Your task to perform on an android device: toggle translation in the chrome app Image 0: 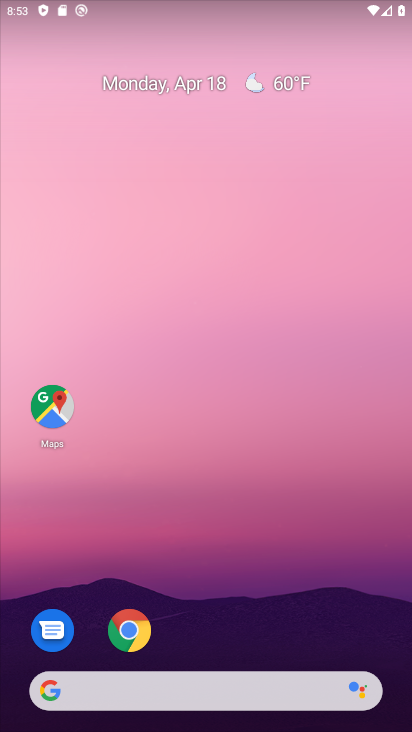
Step 0: click (134, 628)
Your task to perform on an android device: toggle translation in the chrome app Image 1: 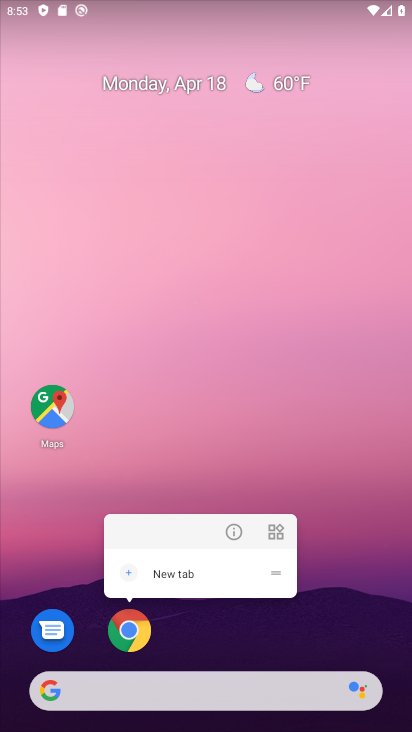
Step 1: drag from (363, 547) to (299, 106)
Your task to perform on an android device: toggle translation in the chrome app Image 2: 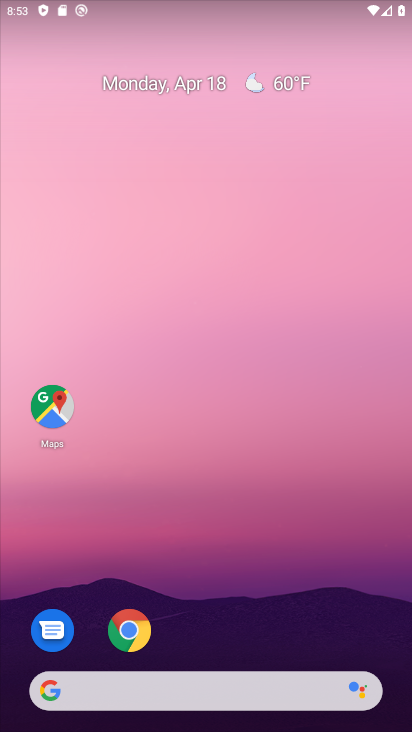
Step 2: drag from (238, 619) to (302, 161)
Your task to perform on an android device: toggle translation in the chrome app Image 3: 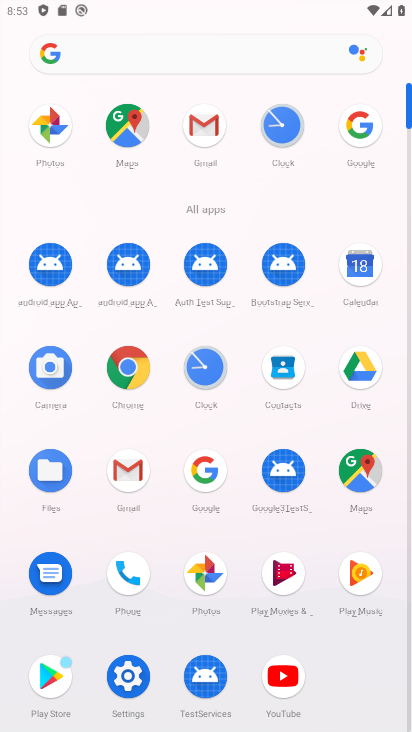
Step 3: click (127, 370)
Your task to perform on an android device: toggle translation in the chrome app Image 4: 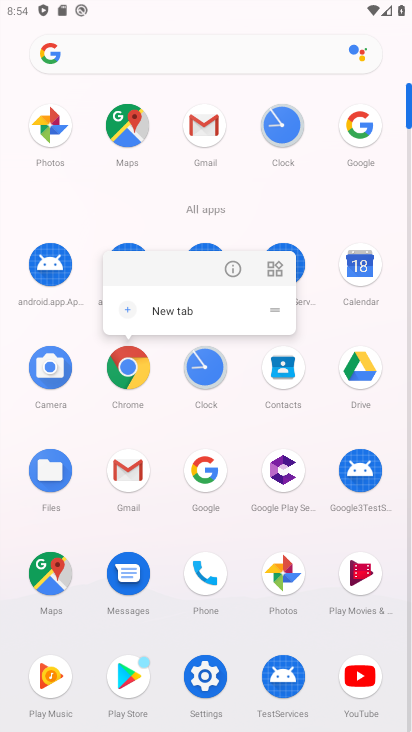
Step 4: click (127, 374)
Your task to perform on an android device: toggle translation in the chrome app Image 5: 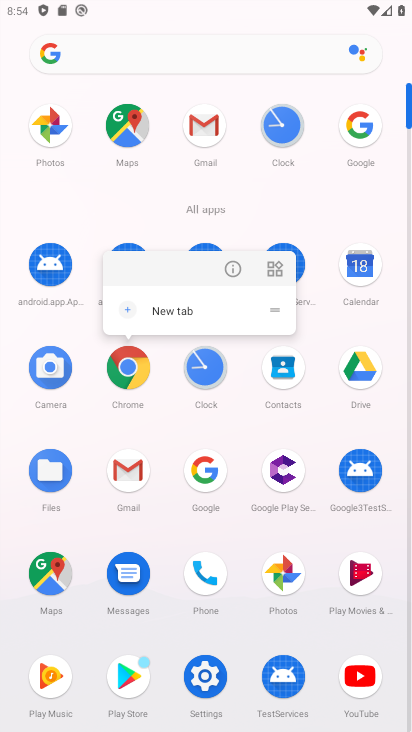
Step 5: click (132, 381)
Your task to perform on an android device: toggle translation in the chrome app Image 6: 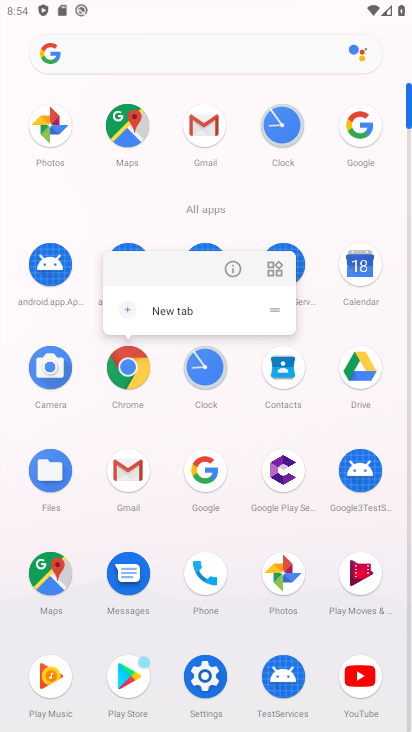
Step 6: click (244, 416)
Your task to perform on an android device: toggle translation in the chrome app Image 7: 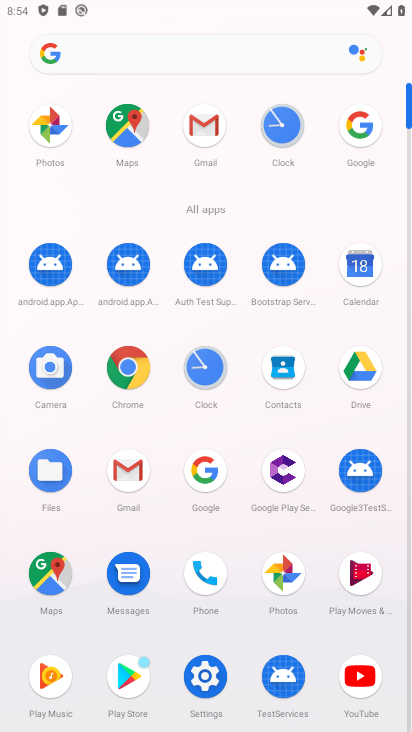
Step 7: click (136, 359)
Your task to perform on an android device: toggle translation in the chrome app Image 8: 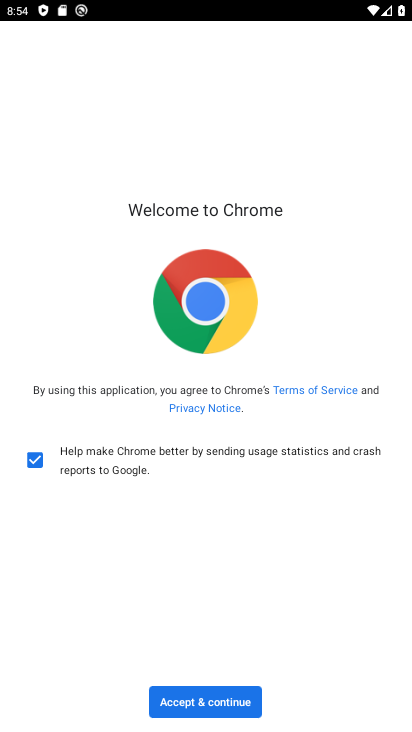
Step 8: click (238, 697)
Your task to perform on an android device: toggle translation in the chrome app Image 9: 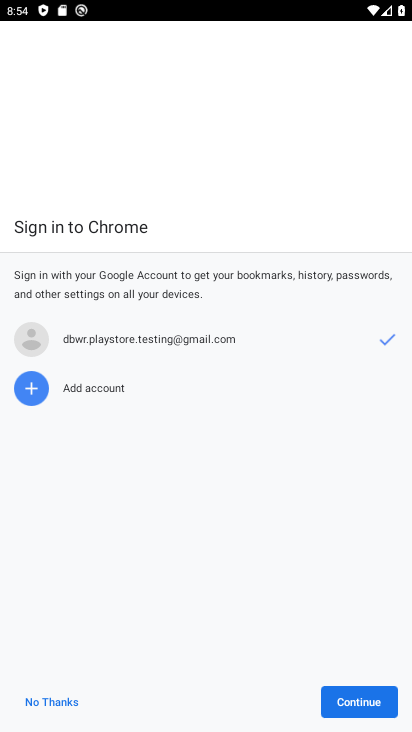
Step 9: click (347, 698)
Your task to perform on an android device: toggle translation in the chrome app Image 10: 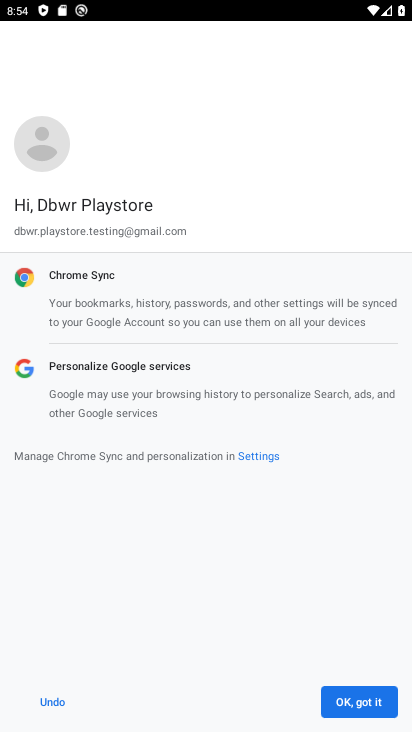
Step 10: click (348, 698)
Your task to perform on an android device: toggle translation in the chrome app Image 11: 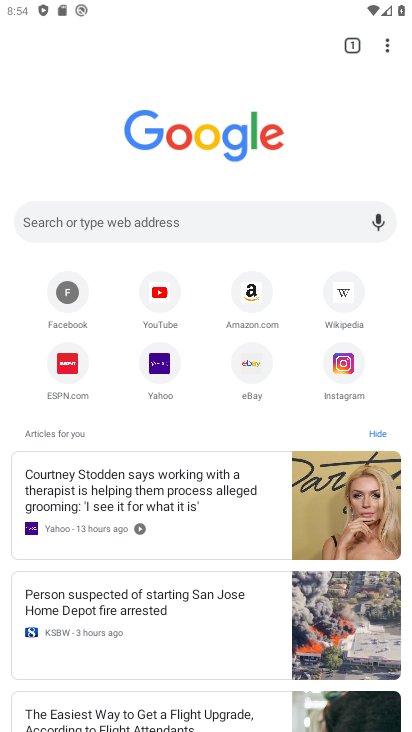
Step 11: click (390, 37)
Your task to perform on an android device: toggle translation in the chrome app Image 12: 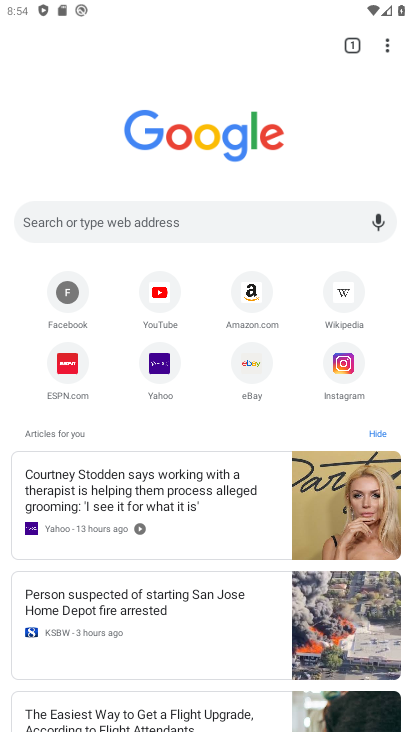
Step 12: drag from (384, 37) to (242, 374)
Your task to perform on an android device: toggle translation in the chrome app Image 13: 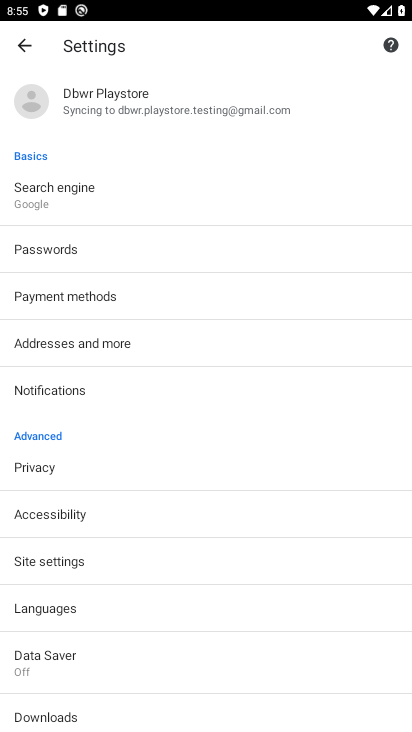
Step 13: click (90, 612)
Your task to perform on an android device: toggle translation in the chrome app Image 14: 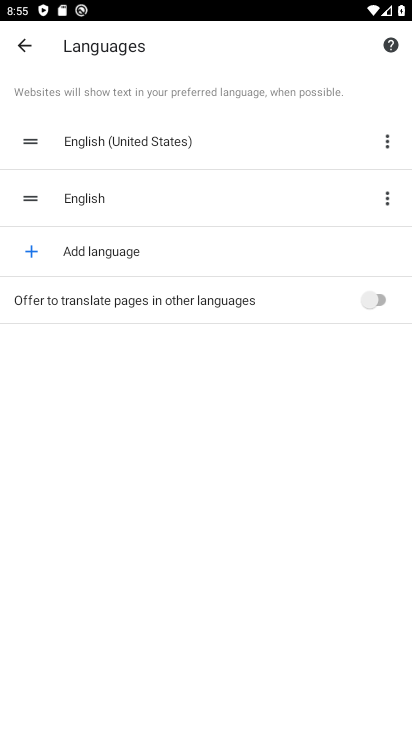
Step 14: click (273, 299)
Your task to perform on an android device: toggle translation in the chrome app Image 15: 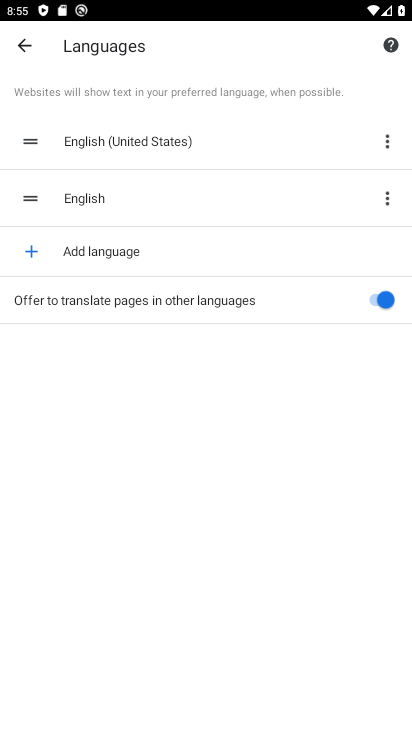
Step 15: task complete